Your task to perform on an android device: toggle airplane mode Image 0: 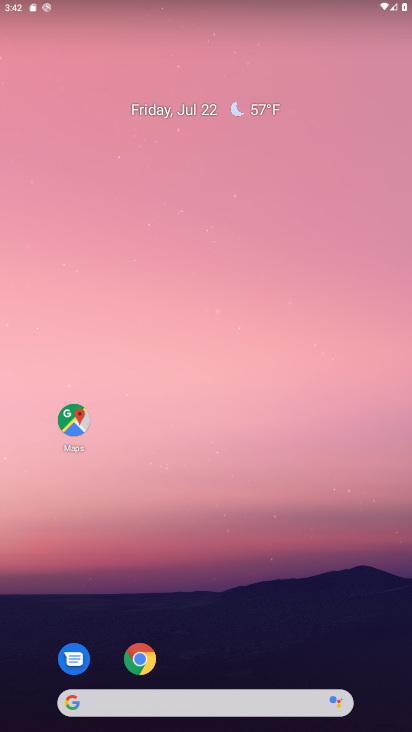
Step 0: drag from (246, 619) to (343, 14)
Your task to perform on an android device: toggle airplane mode Image 1: 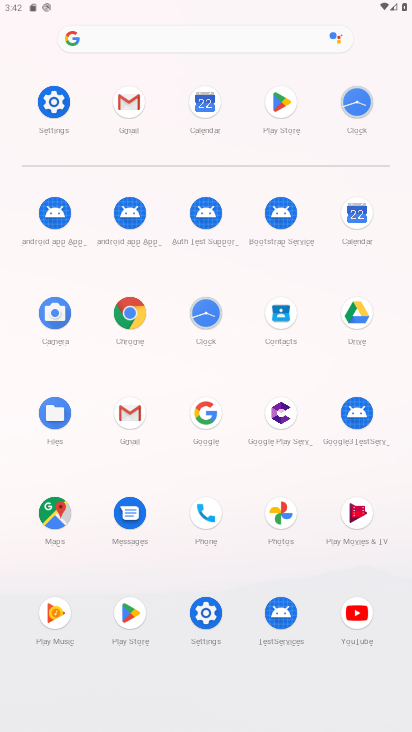
Step 1: click (50, 107)
Your task to perform on an android device: toggle airplane mode Image 2: 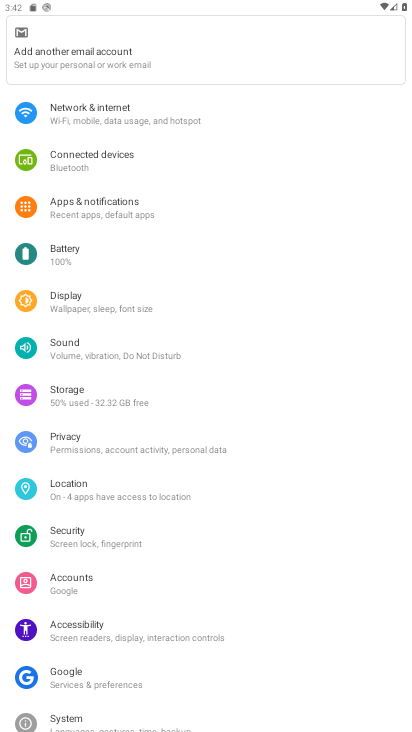
Step 2: click (87, 117)
Your task to perform on an android device: toggle airplane mode Image 3: 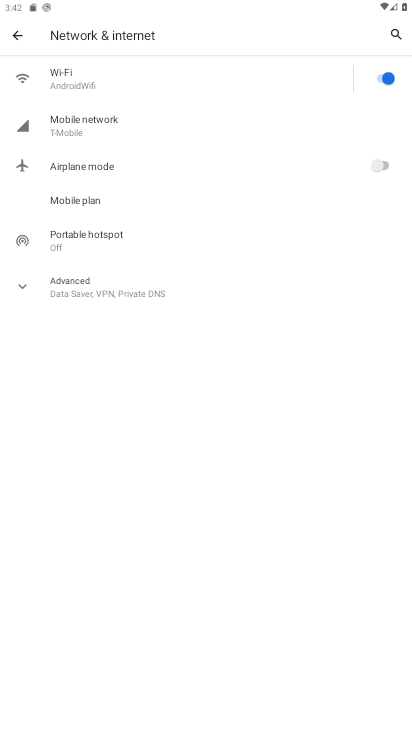
Step 3: click (374, 170)
Your task to perform on an android device: toggle airplane mode Image 4: 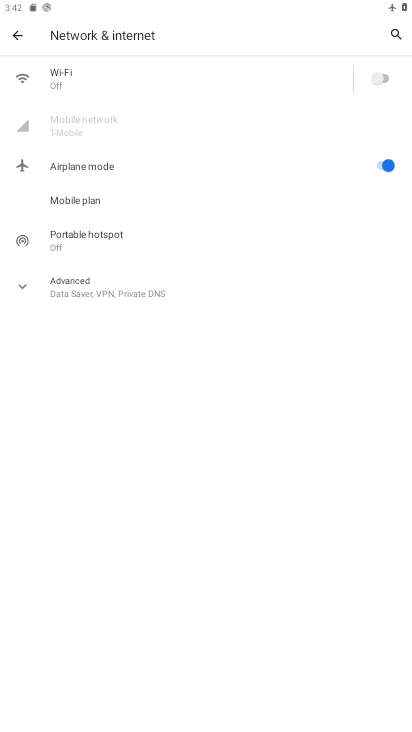
Step 4: task complete